Your task to perform on an android device: Show me productivity apps on the Play Store Image 0: 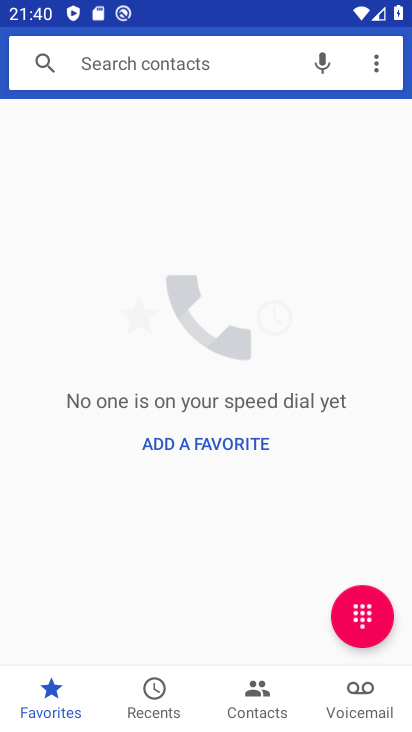
Step 0: press home button
Your task to perform on an android device: Show me productivity apps on the Play Store Image 1: 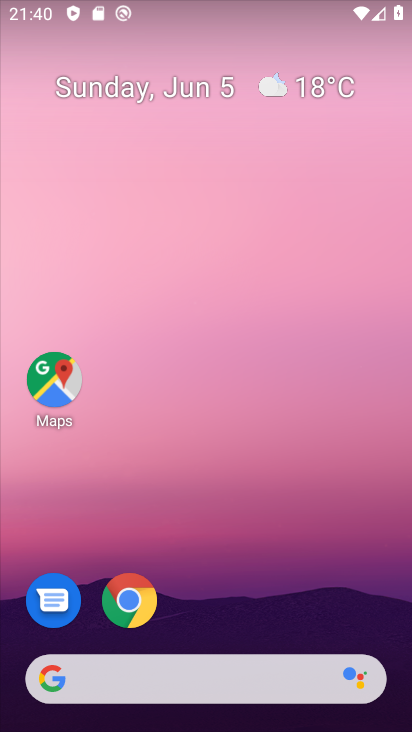
Step 1: drag from (316, 562) to (257, 89)
Your task to perform on an android device: Show me productivity apps on the Play Store Image 2: 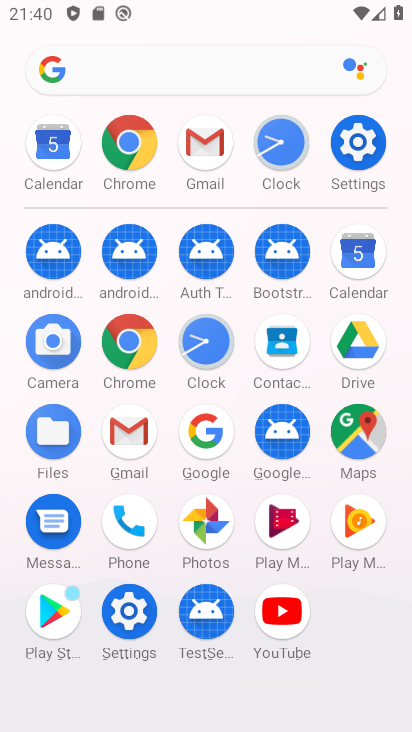
Step 2: click (54, 620)
Your task to perform on an android device: Show me productivity apps on the Play Store Image 3: 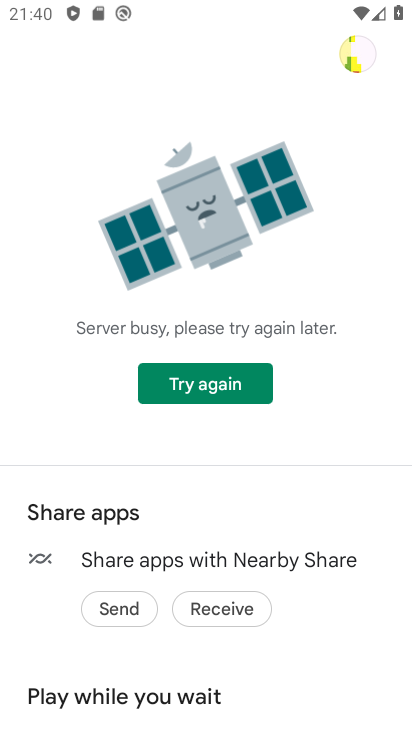
Step 3: click (222, 377)
Your task to perform on an android device: Show me productivity apps on the Play Store Image 4: 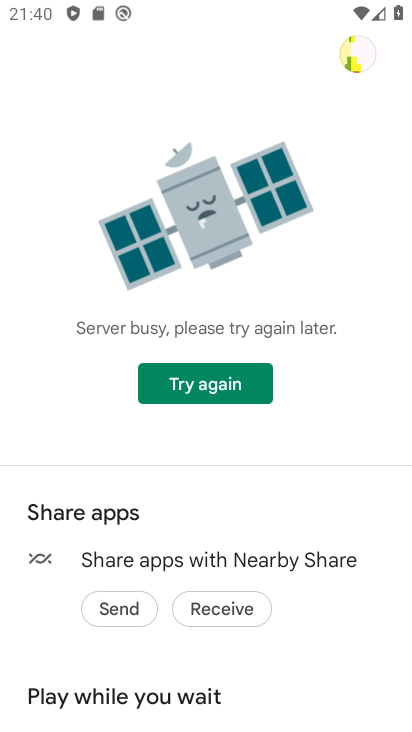
Step 4: task complete